Your task to perform on an android device: change the clock style Image 0: 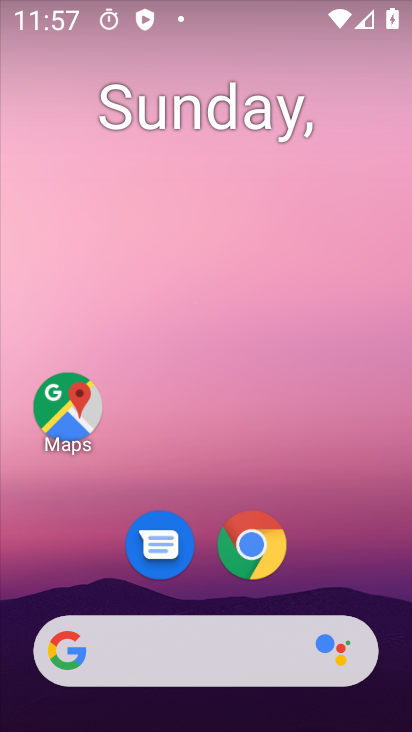
Step 0: drag from (190, 592) to (213, 306)
Your task to perform on an android device: change the clock style Image 1: 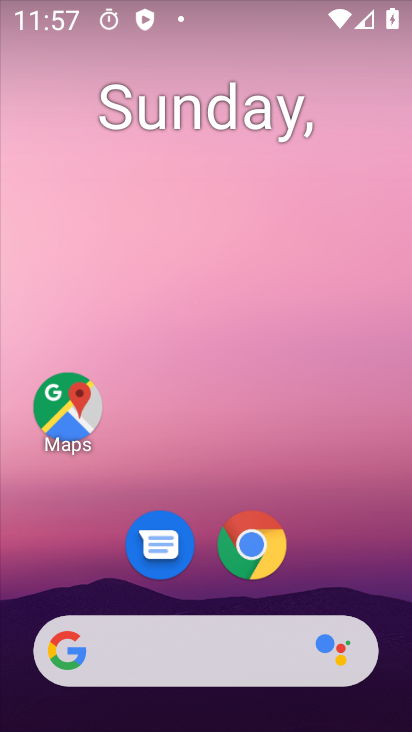
Step 1: drag from (216, 535) to (239, 245)
Your task to perform on an android device: change the clock style Image 2: 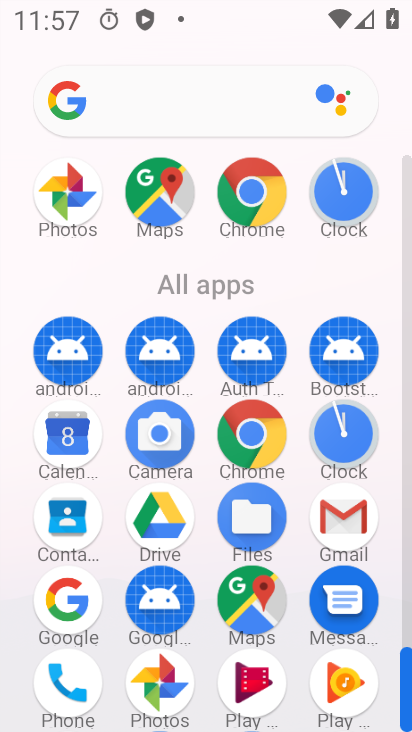
Step 2: drag from (204, 603) to (213, 260)
Your task to perform on an android device: change the clock style Image 3: 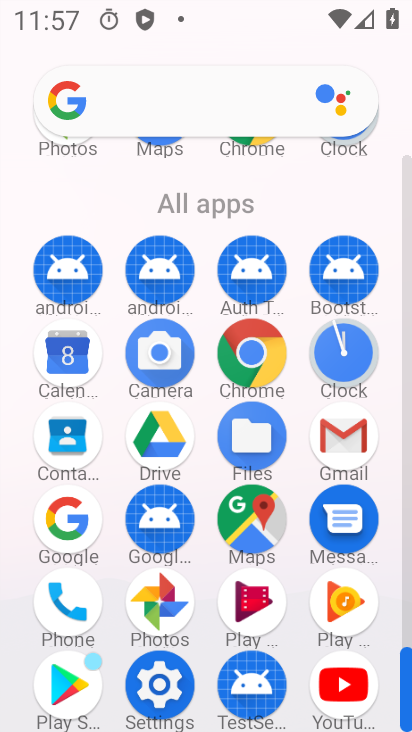
Step 3: click (154, 677)
Your task to perform on an android device: change the clock style Image 4: 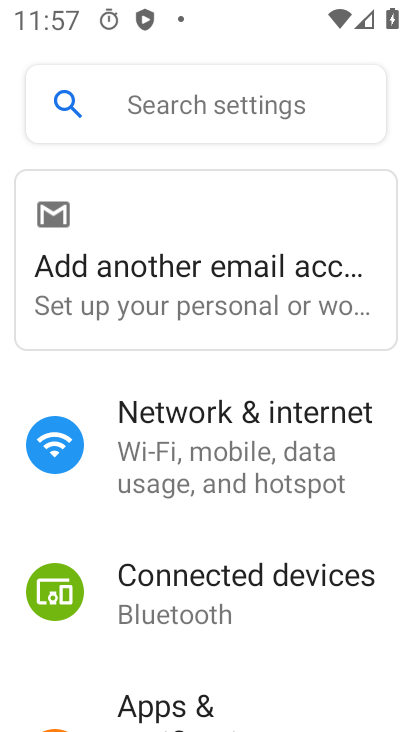
Step 4: drag from (201, 656) to (231, 271)
Your task to perform on an android device: change the clock style Image 5: 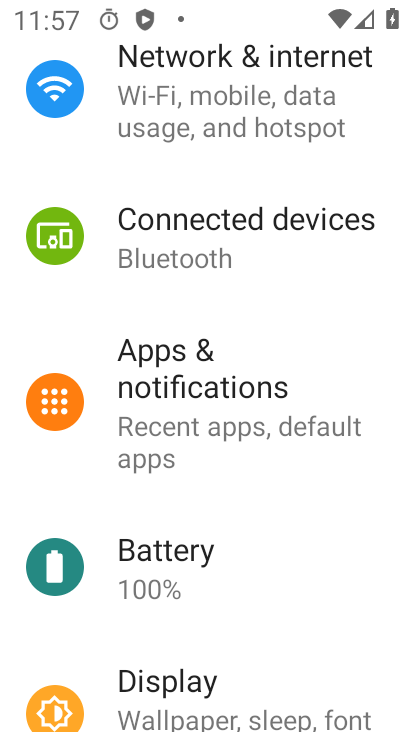
Step 5: press home button
Your task to perform on an android device: change the clock style Image 6: 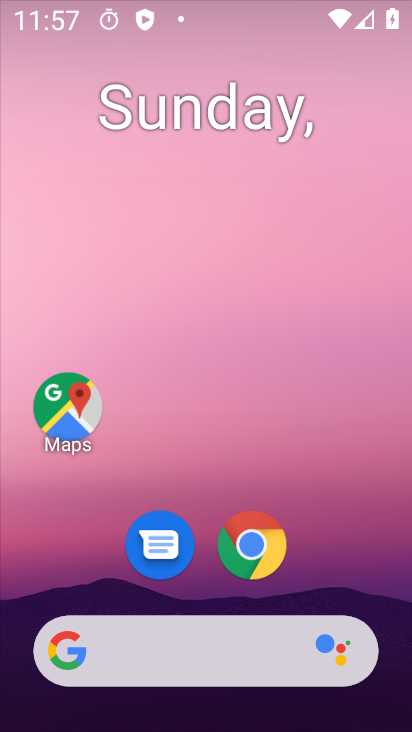
Step 6: drag from (218, 652) to (219, 307)
Your task to perform on an android device: change the clock style Image 7: 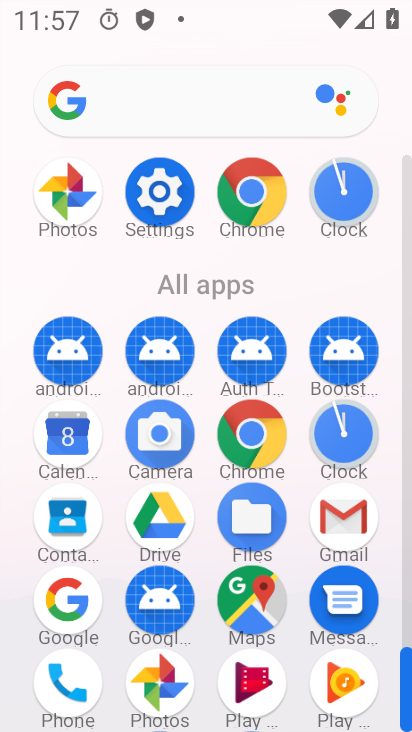
Step 7: click (349, 438)
Your task to perform on an android device: change the clock style Image 8: 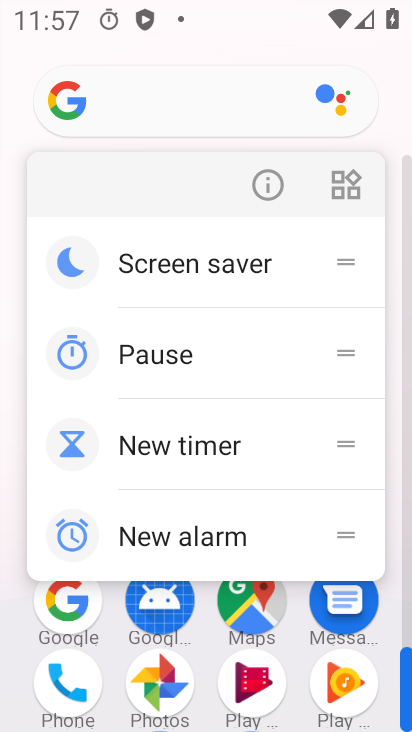
Step 8: click (259, 186)
Your task to perform on an android device: change the clock style Image 9: 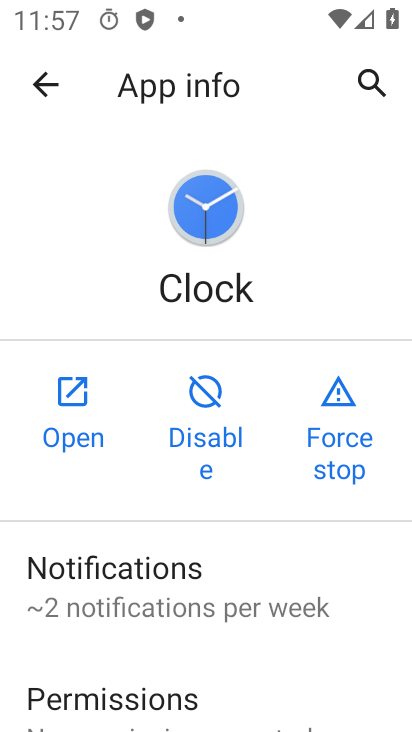
Step 9: click (85, 412)
Your task to perform on an android device: change the clock style Image 10: 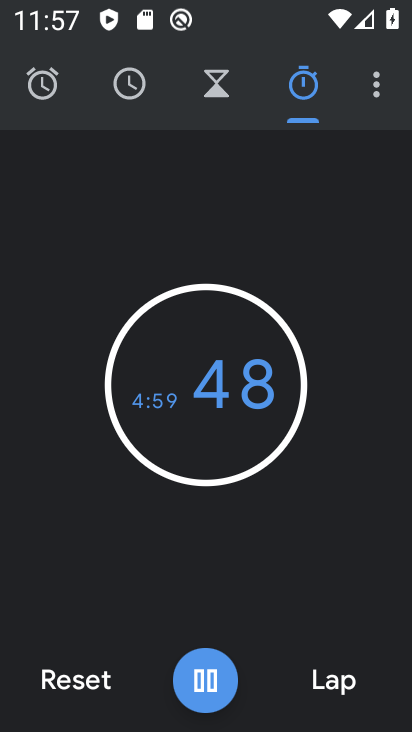
Step 10: click (380, 83)
Your task to perform on an android device: change the clock style Image 11: 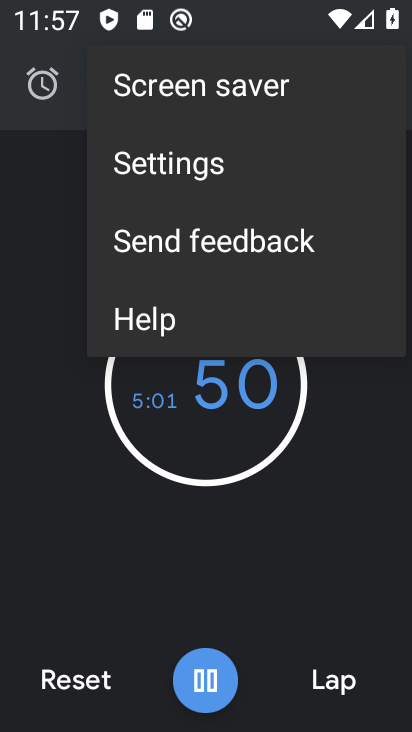
Step 11: click (194, 161)
Your task to perform on an android device: change the clock style Image 12: 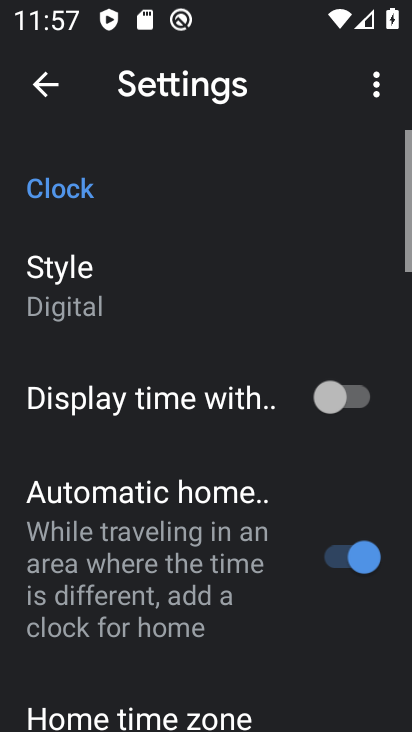
Step 12: click (97, 269)
Your task to perform on an android device: change the clock style Image 13: 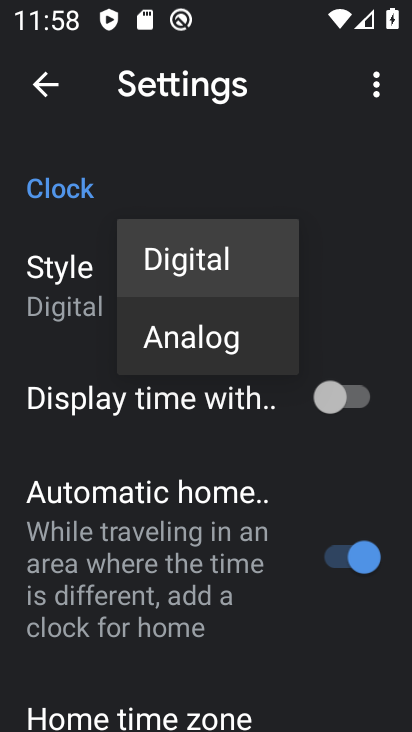
Step 13: click (191, 331)
Your task to perform on an android device: change the clock style Image 14: 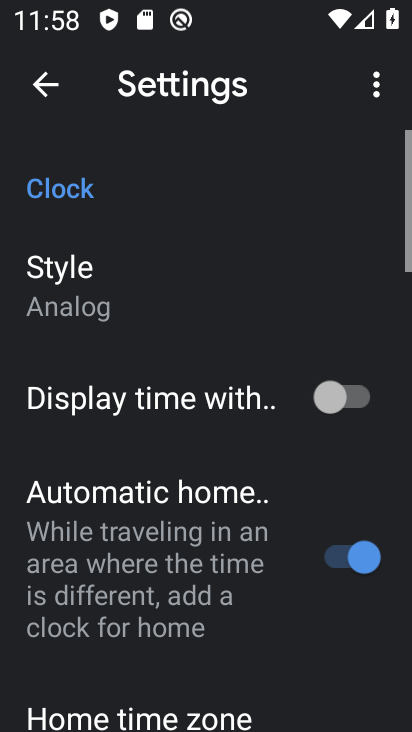
Step 14: task complete